Your task to perform on an android device: Open Google Chrome Image 0: 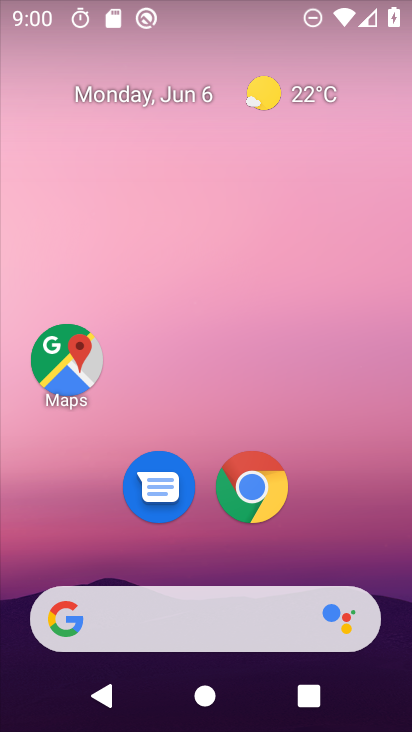
Step 0: drag from (392, 625) to (314, 67)
Your task to perform on an android device: Open Google Chrome Image 1: 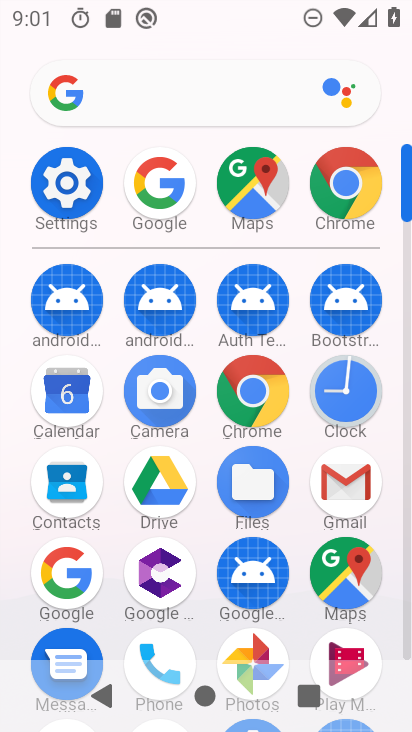
Step 1: click (245, 403)
Your task to perform on an android device: Open Google Chrome Image 2: 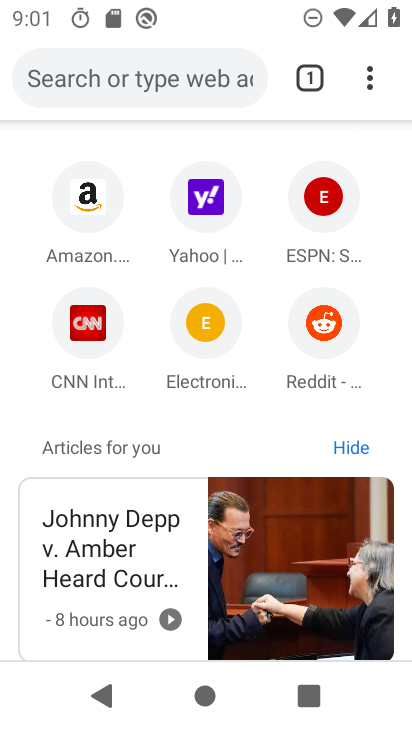
Step 2: task complete